Your task to perform on an android device: change the clock display to show seconds Image 0: 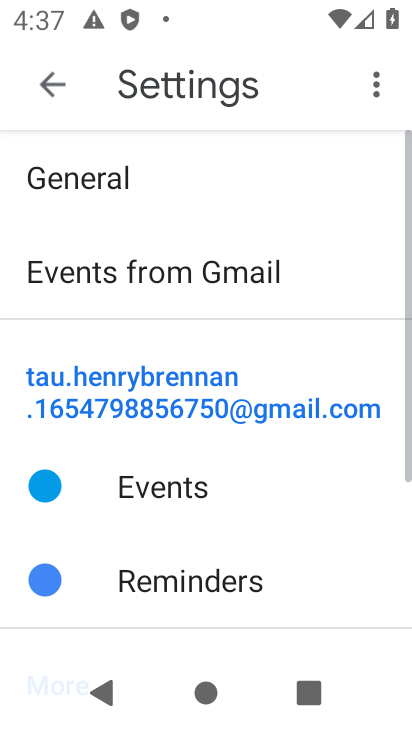
Step 0: drag from (296, 664) to (325, 149)
Your task to perform on an android device: change the clock display to show seconds Image 1: 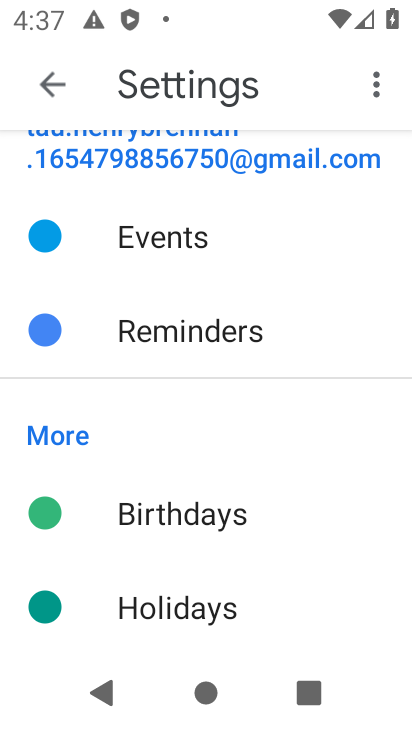
Step 1: press home button
Your task to perform on an android device: change the clock display to show seconds Image 2: 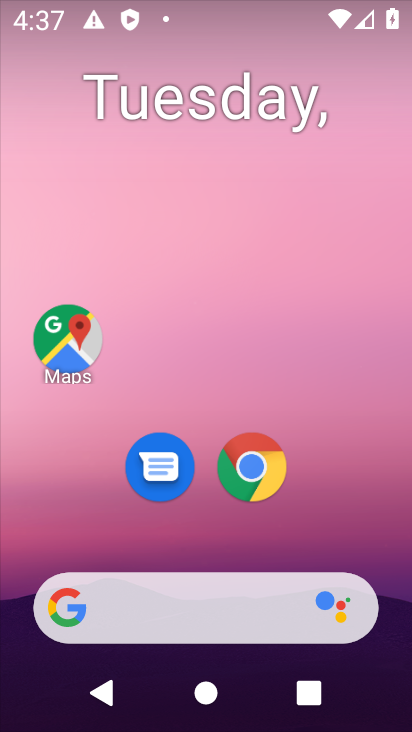
Step 2: drag from (245, 608) to (320, 86)
Your task to perform on an android device: change the clock display to show seconds Image 3: 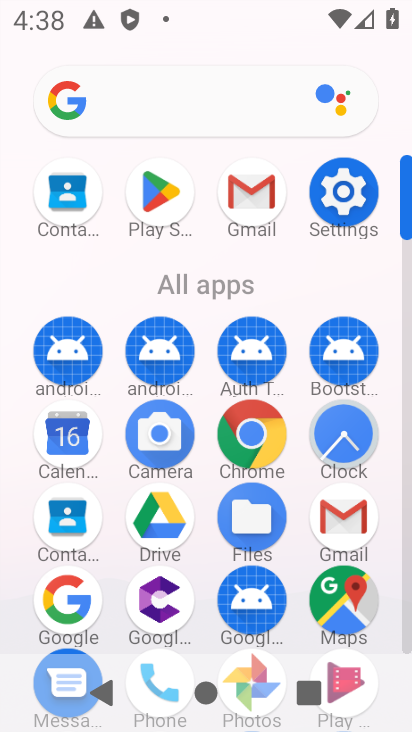
Step 3: click (364, 452)
Your task to perform on an android device: change the clock display to show seconds Image 4: 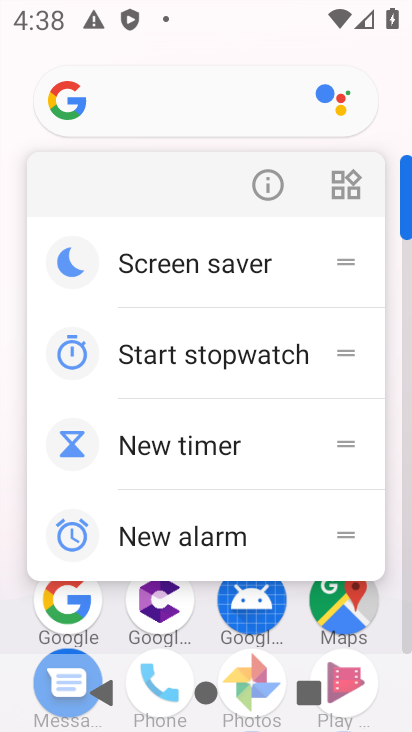
Step 4: press back button
Your task to perform on an android device: change the clock display to show seconds Image 5: 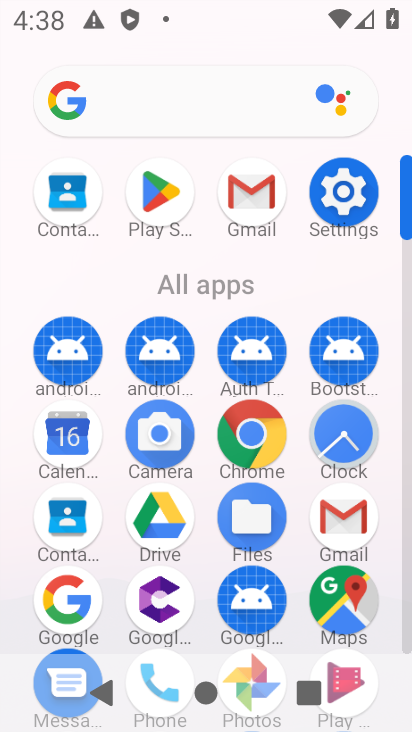
Step 5: click (340, 458)
Your task to perform on an android device: change the clock display to show seconds Image 6: 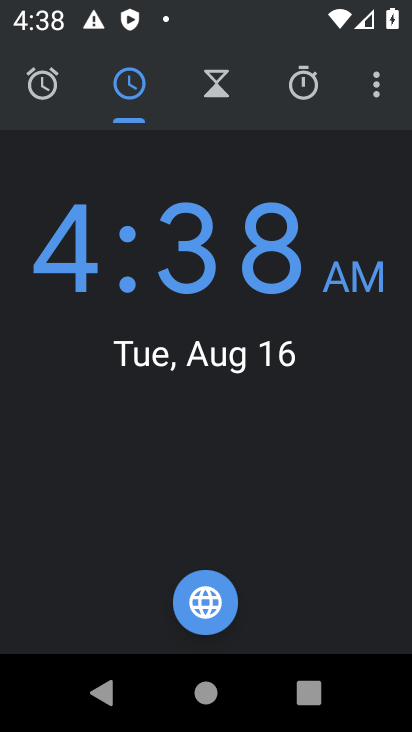
Step 6: click (379, 98)
Your task to perform on an android device: change the clock display to show seconds Image 7: 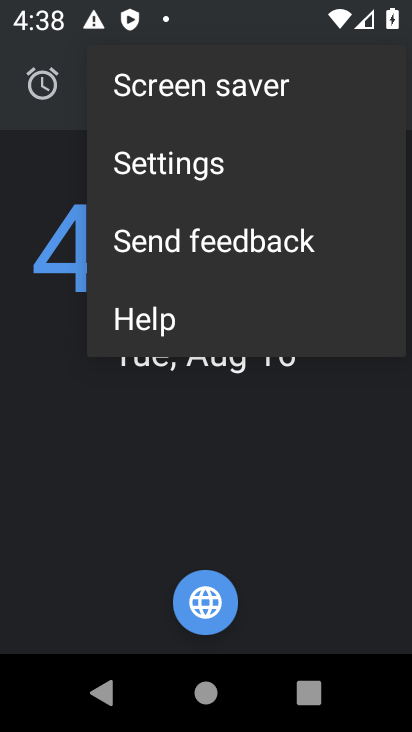
Step 7: click (206, 155)
Your task to perform on an android device: change the clock display to show seconds Image 8: 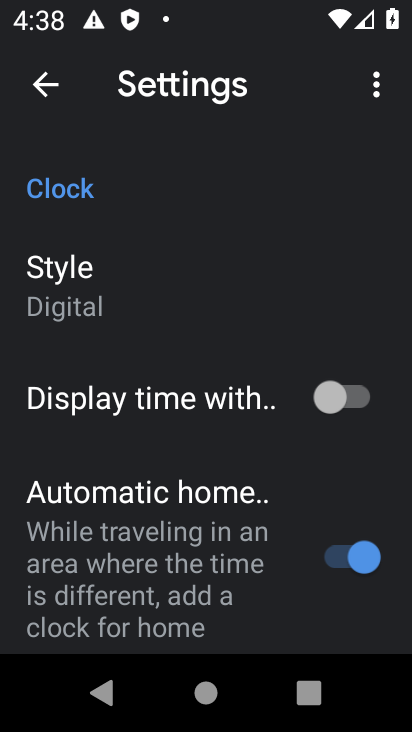
Step 8: drag from (184, 556) to (209, 233)
Your task to perform on an android device: change the clock display to show seconds Image 9: 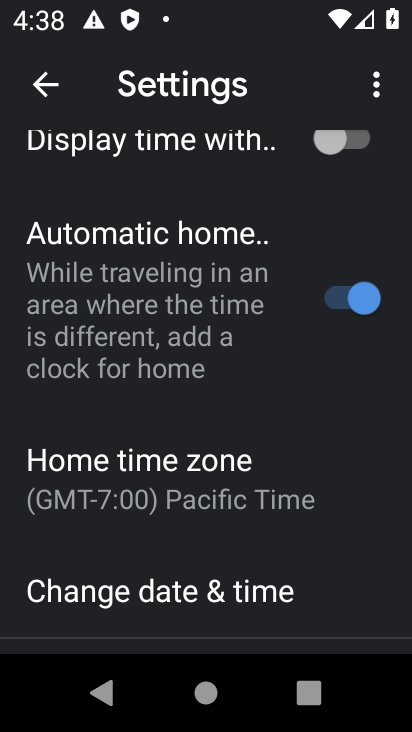
Step 9: drag from (209, 233) to (211, 544)
Your task to perform on an android device: change the clock display to show seconds Image 10: 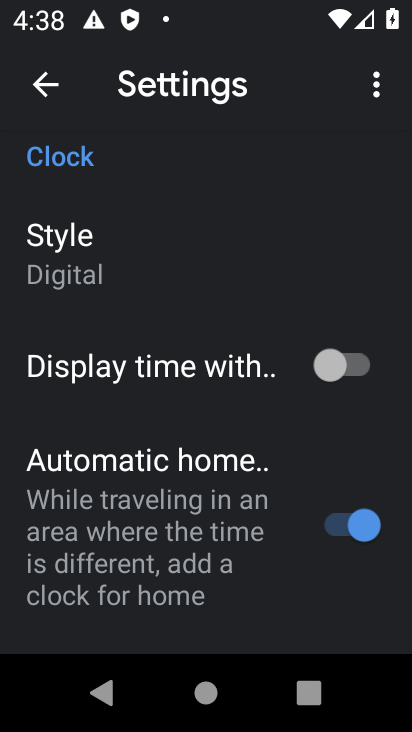
Step 10: click (337, 375)
Your task to perform on an android device: change the clock display to show seconds Image 11: 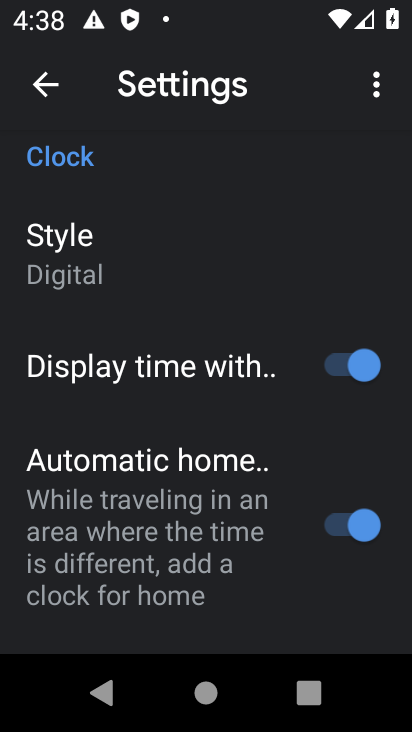
Step 11: task complete